Your task to perform on an android device: change notification settings in the gmail app Image 0: 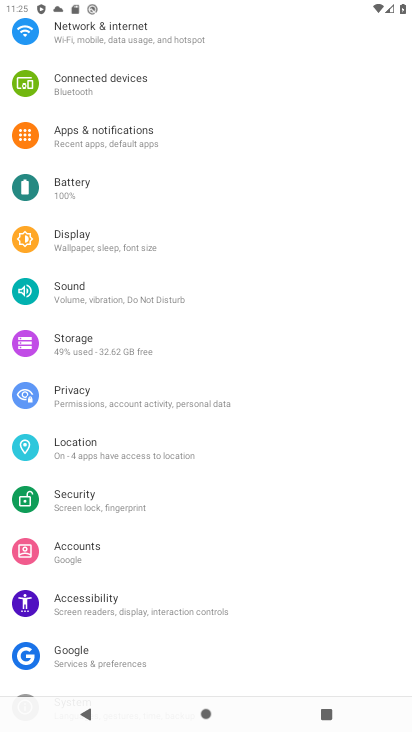
Step 0: press home button
Your task to perform on an android device: change notification settings in the gmail app Image 1: 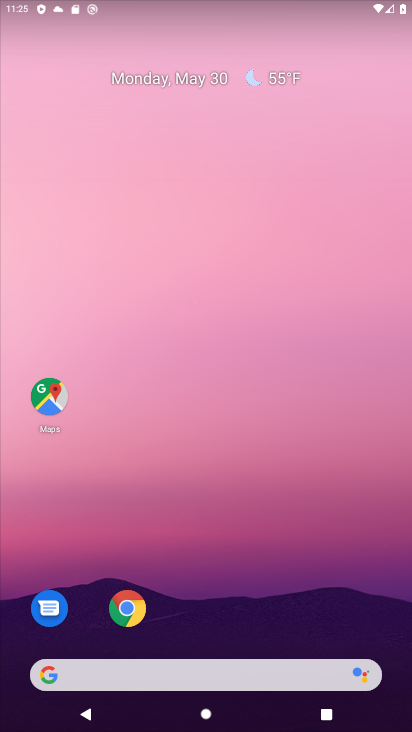
Step 1: drag from (241, 630) to (237, 38)
Your task to perform on an android device: change notification settings in the gmail app Image 2: 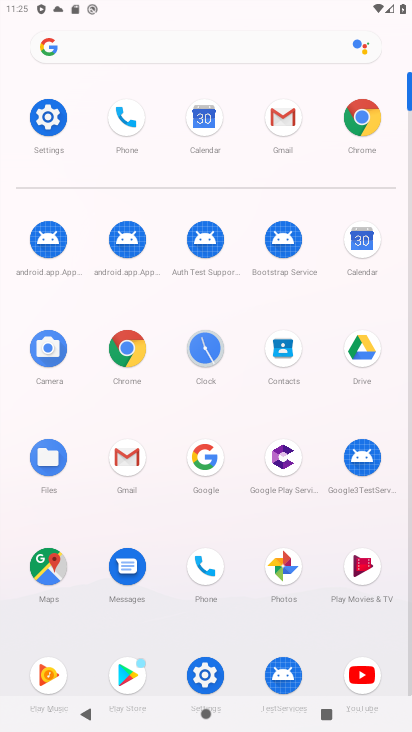
Step 2: click (288, 118)
Your task to perform on an android device: change notification settings in the gmail app Image 3: 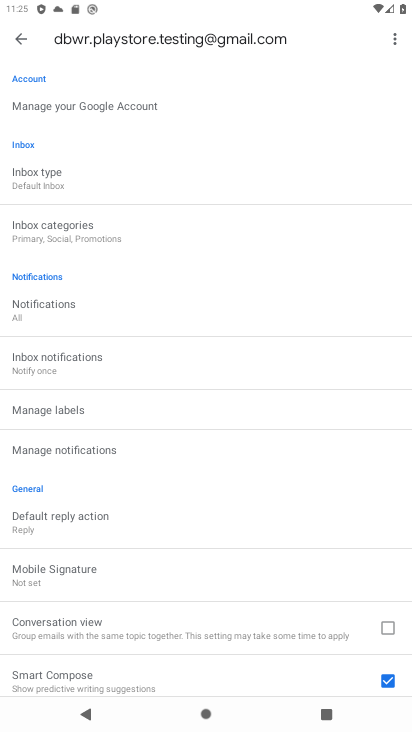
Step 3: click (23, 40)
Your task to perform on an android device: change notification settings in the gmail app Image 4: 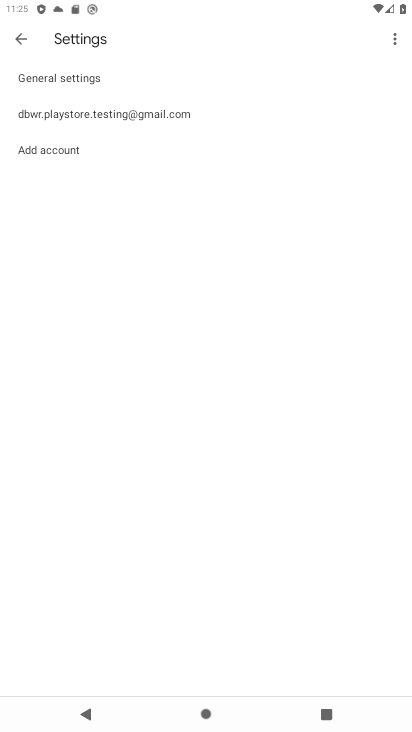
Step 4: click (49, 82)
Your task to perform on an android device: change notification settings in the gmail app Image 5: 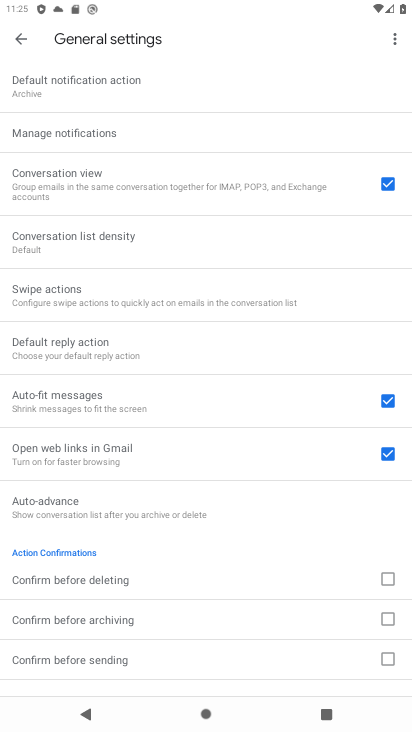
Step 5: click (54, 130)
Your task to perform on an android device: change notification settings in the gmail app Image 6: 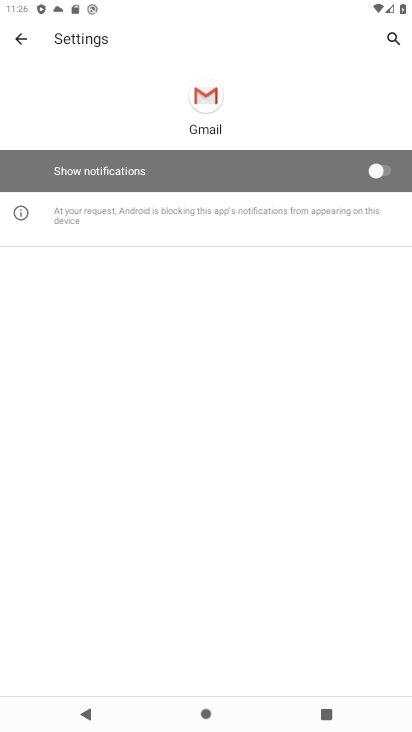
Step 6: click (382, 173)
Your task to perform on an android device: change notification settings in the gmail app Image 7: 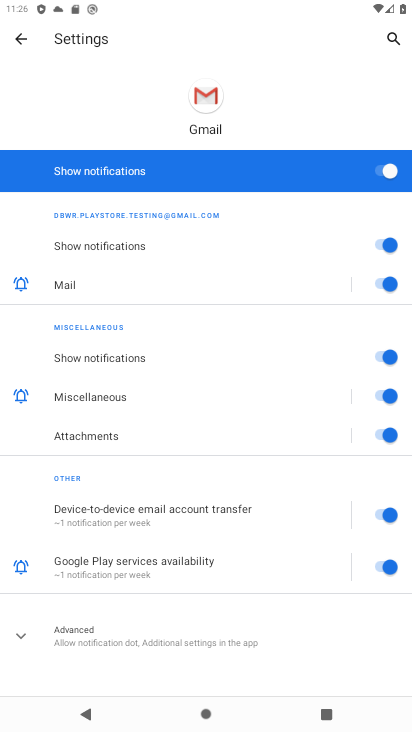
Step 7: task complete